Your task to perform on an android device: turn off airplane mode Image 0: 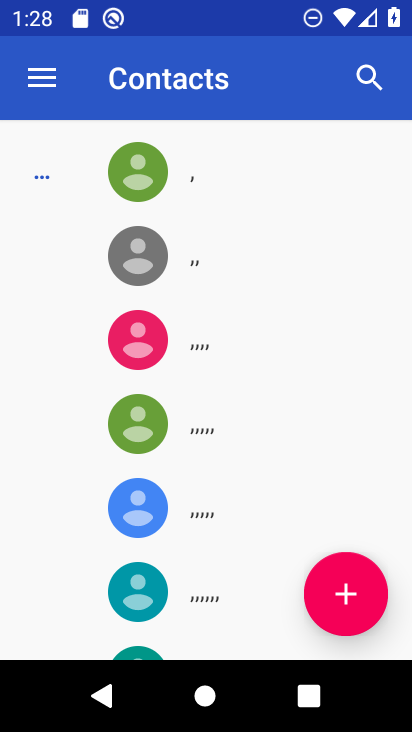
Step 0: press home button
Your task to perform on an android device: turn off airplane mode Image 1: 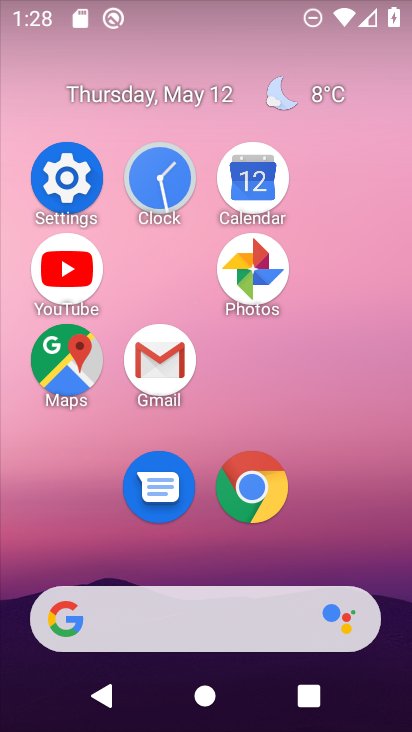
Step 1: click (73, 186)
Your task to perform on an android device: turn off airplane mode Image 2: 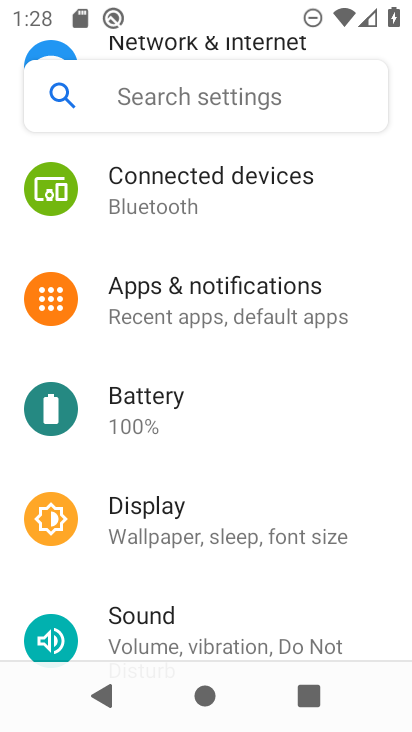
Step 2: drag from (313, 217) to (296, 501)
Your task to perform on an android device: turn off airplane mode Image 3: 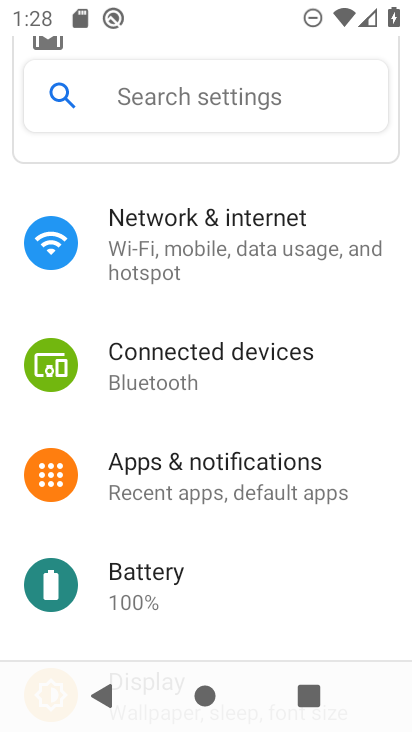
Step 3: click (274, 243)
Your task to perform on an android device: turn off airplane mode Image 4: 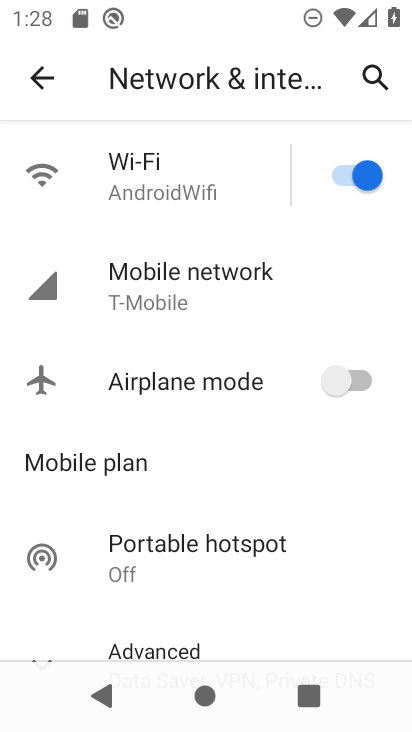
Step 4: click (362, 364)
Your task to perform on an android device: turn off airplane mode Image 5: 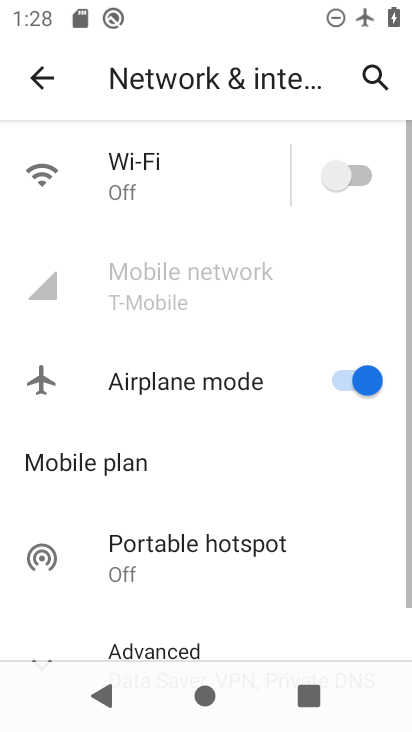
Step 5: task complete